Your task to perform on an android device: Clear all items from cart on bestbuy. Image 0: 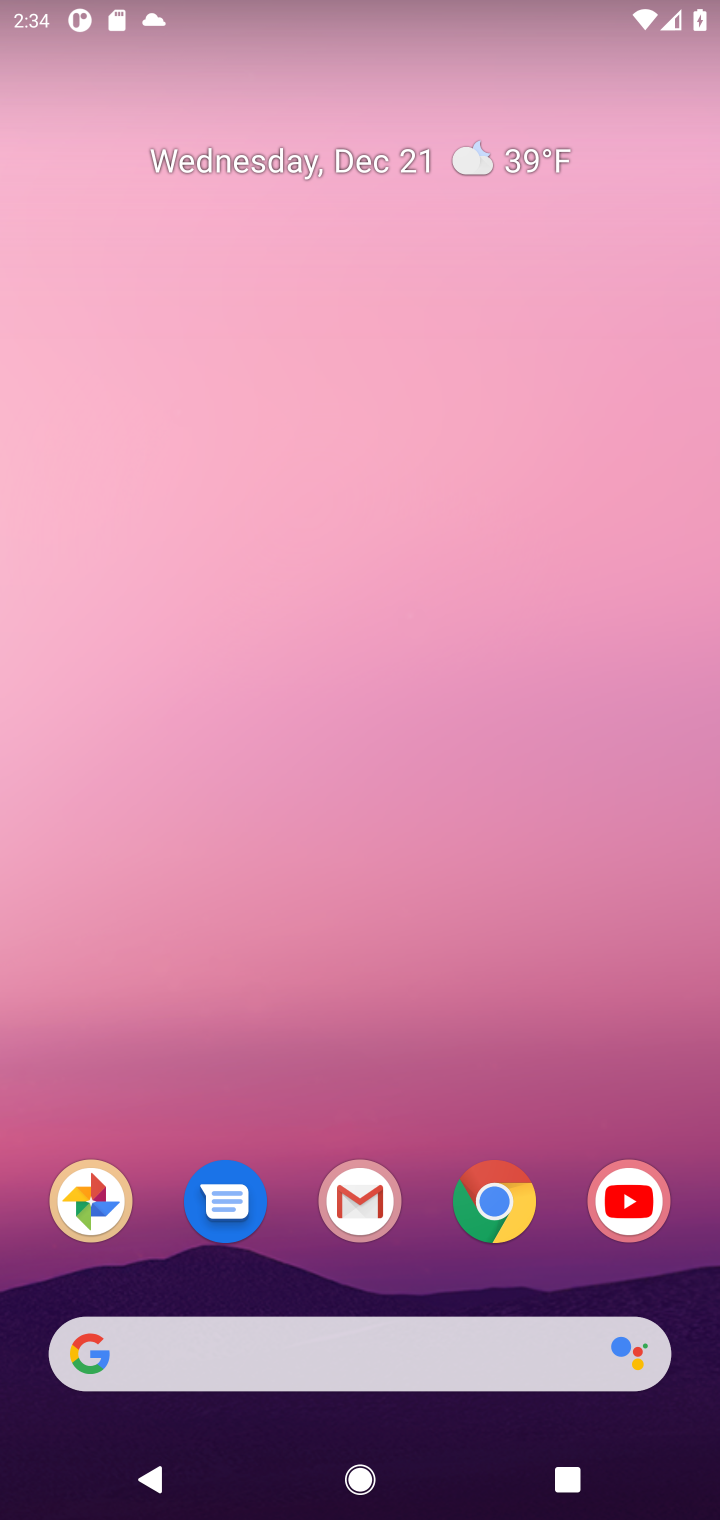
Step 0: click (500, 1202)
Your task to perform on an android device: Clear all items from cart on bestbuy. Image 1: 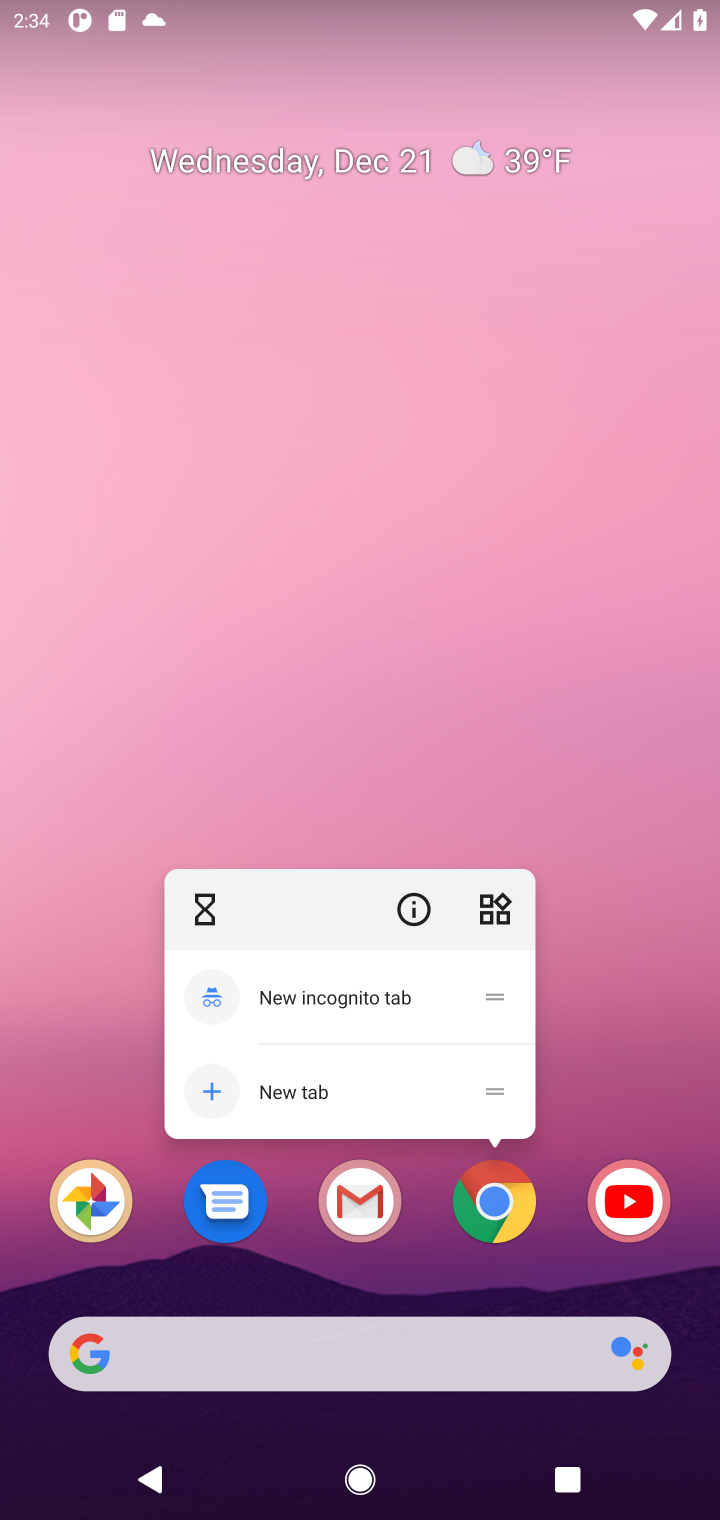
Step 1: click (500, 1209)
Your task to perform on an android device: Clear all items from cart on bestbuy. Image 2: 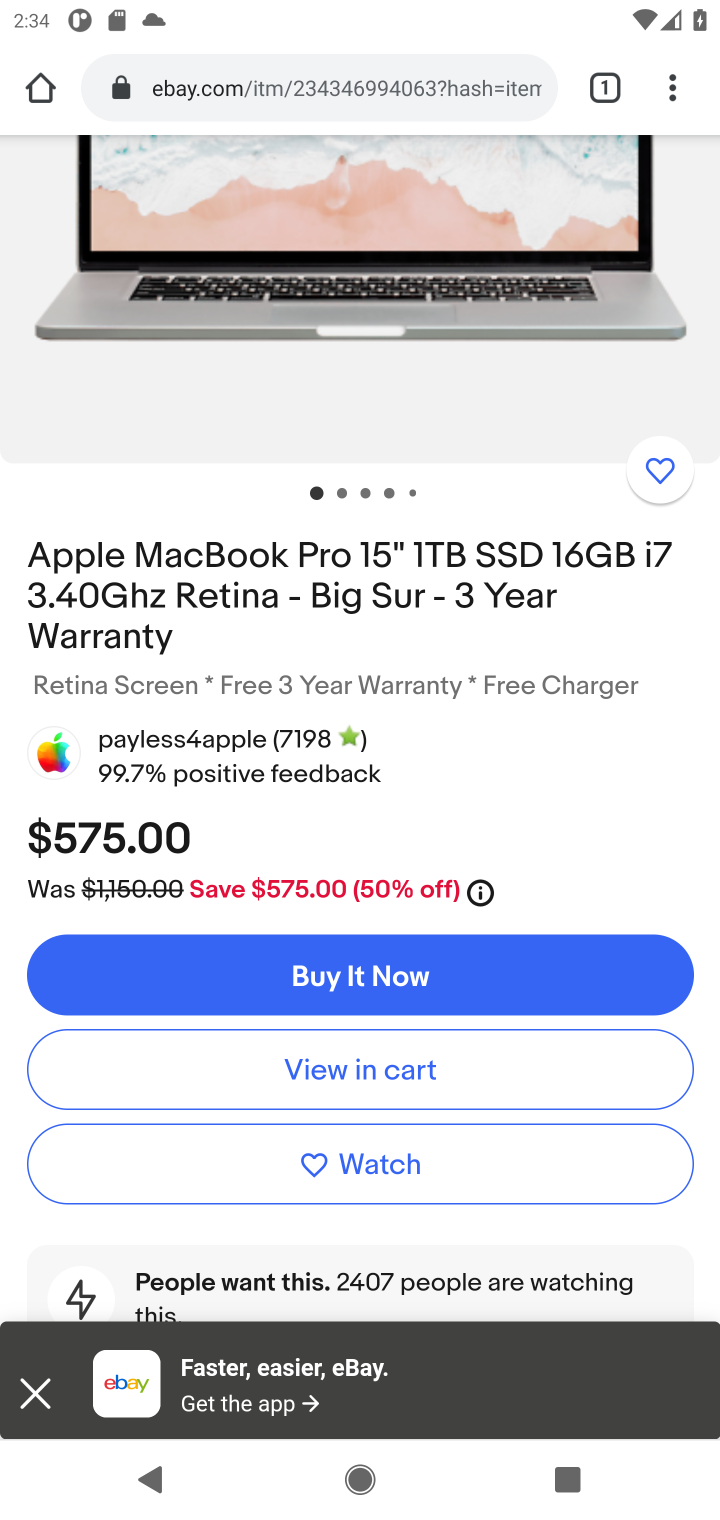
Step 2: click (263, 96)
Your task to perform on an android device: Clear all items from cart on bestbuy. Image 3: 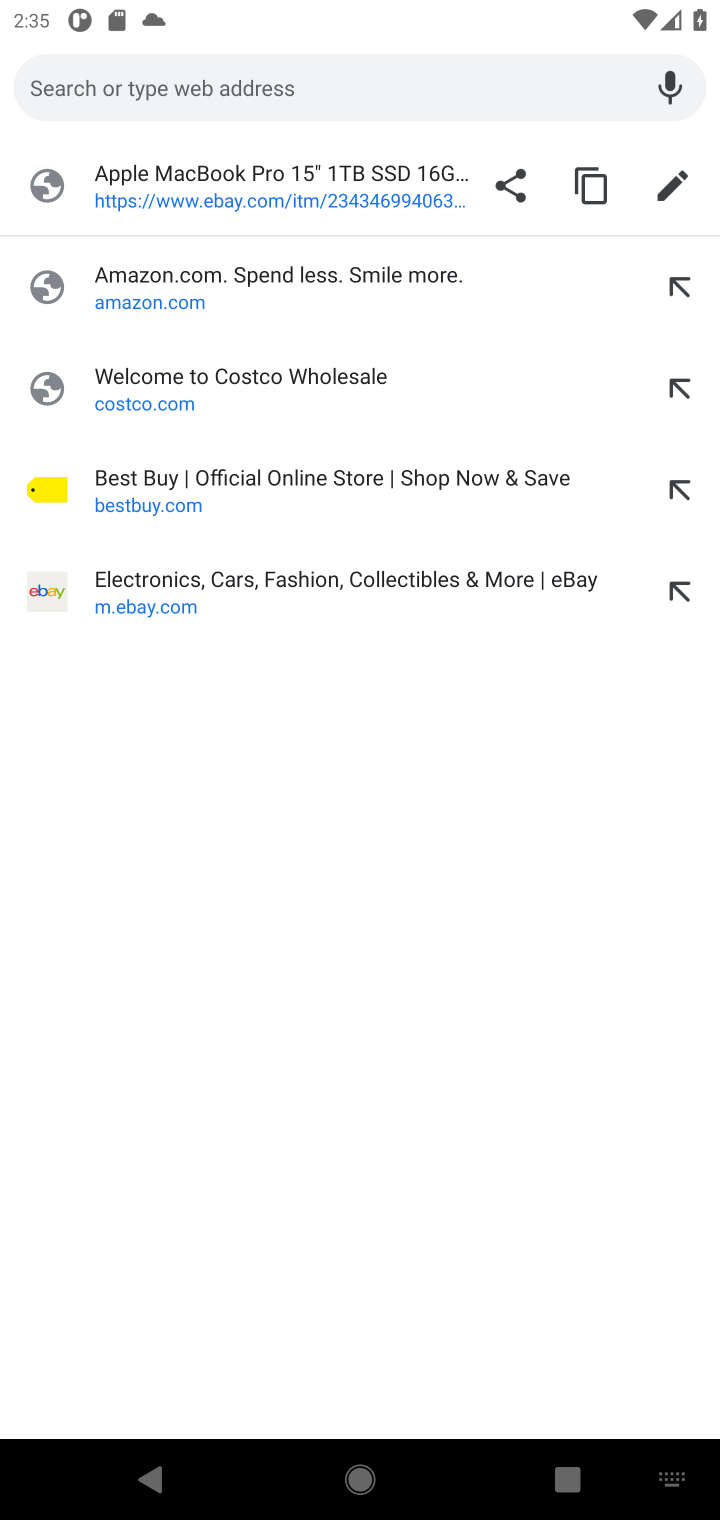
Step 3: click (149, 492)
Your task to perform on an android device: Clear all items from cart on bestbuy. Image 4: 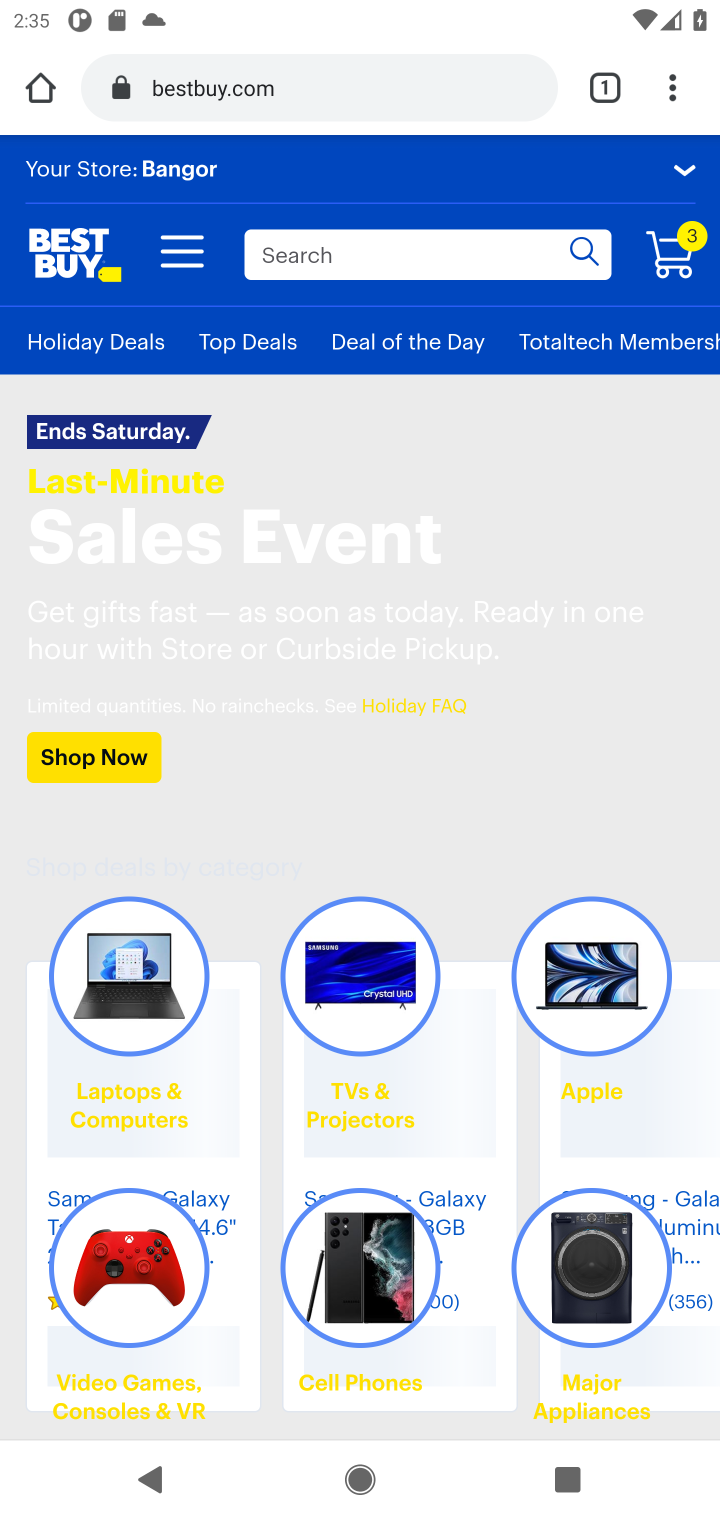
Step 4: click (677, 261)
Your task to perform on an android device: Clear all items from cart on bestbuy. Image 5: 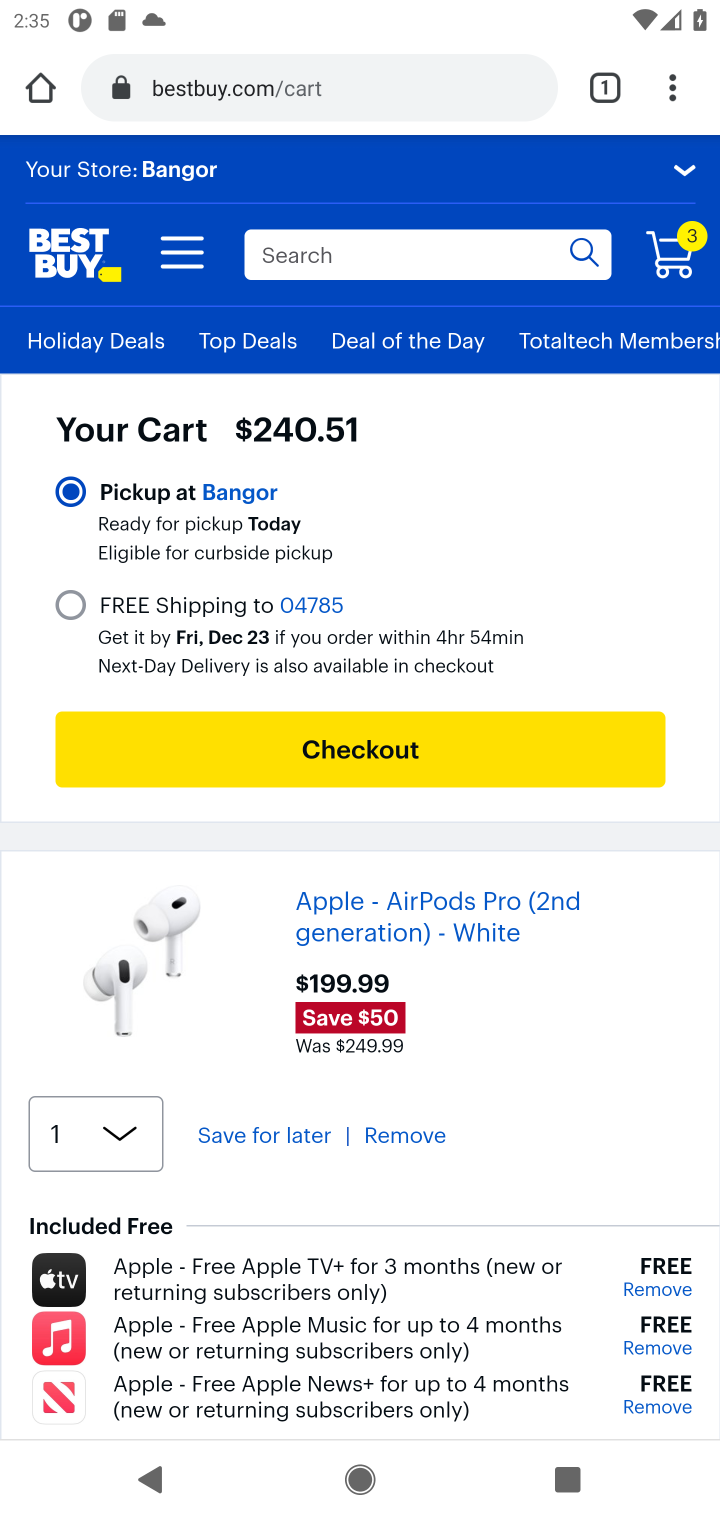
Step 5: click (415, 1138)
Your task to perform on an android device: Clear all items from cart on bestbuy. Image 6: 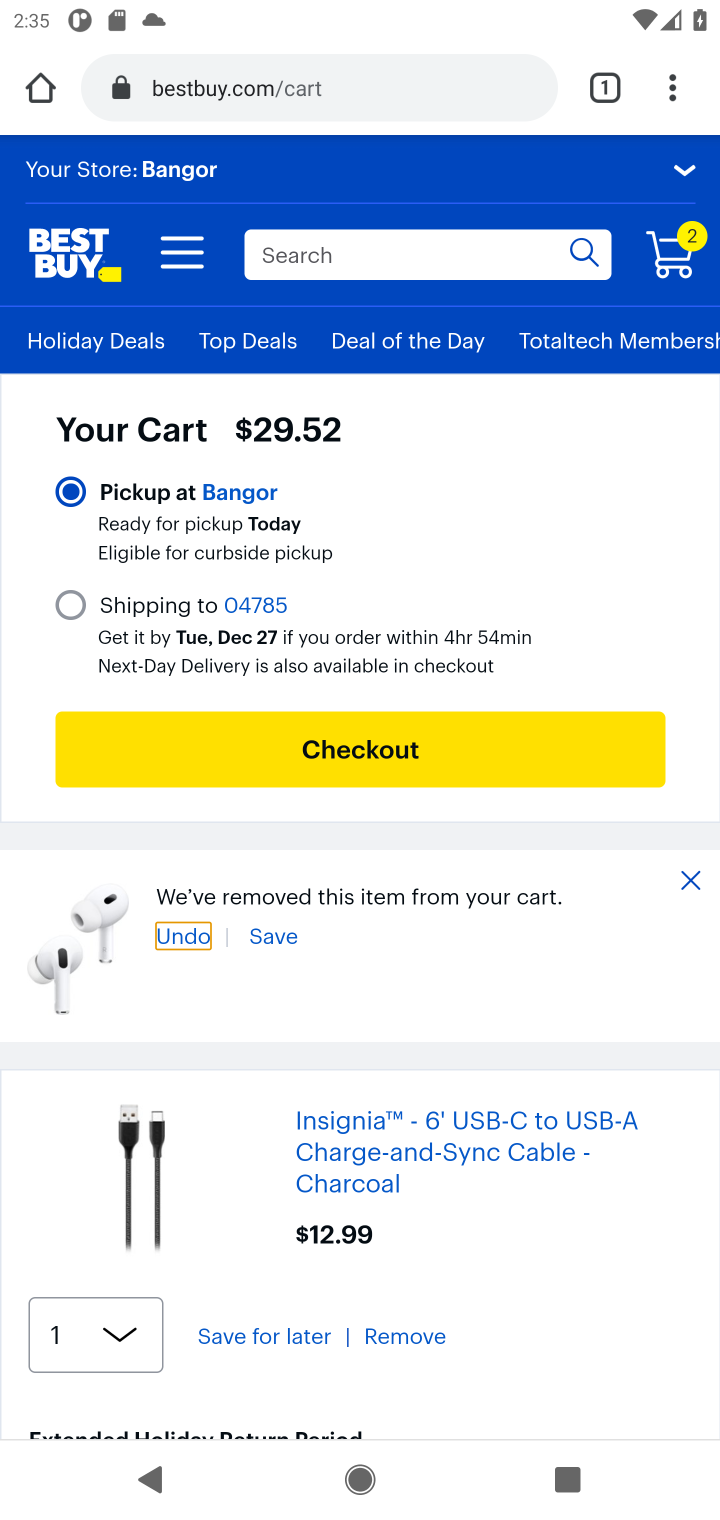
Step 6: drag from (416, 1151) to (388, 778)
Your task to perform on an android device: Clear all items from cart on bestbuy. Image 7: 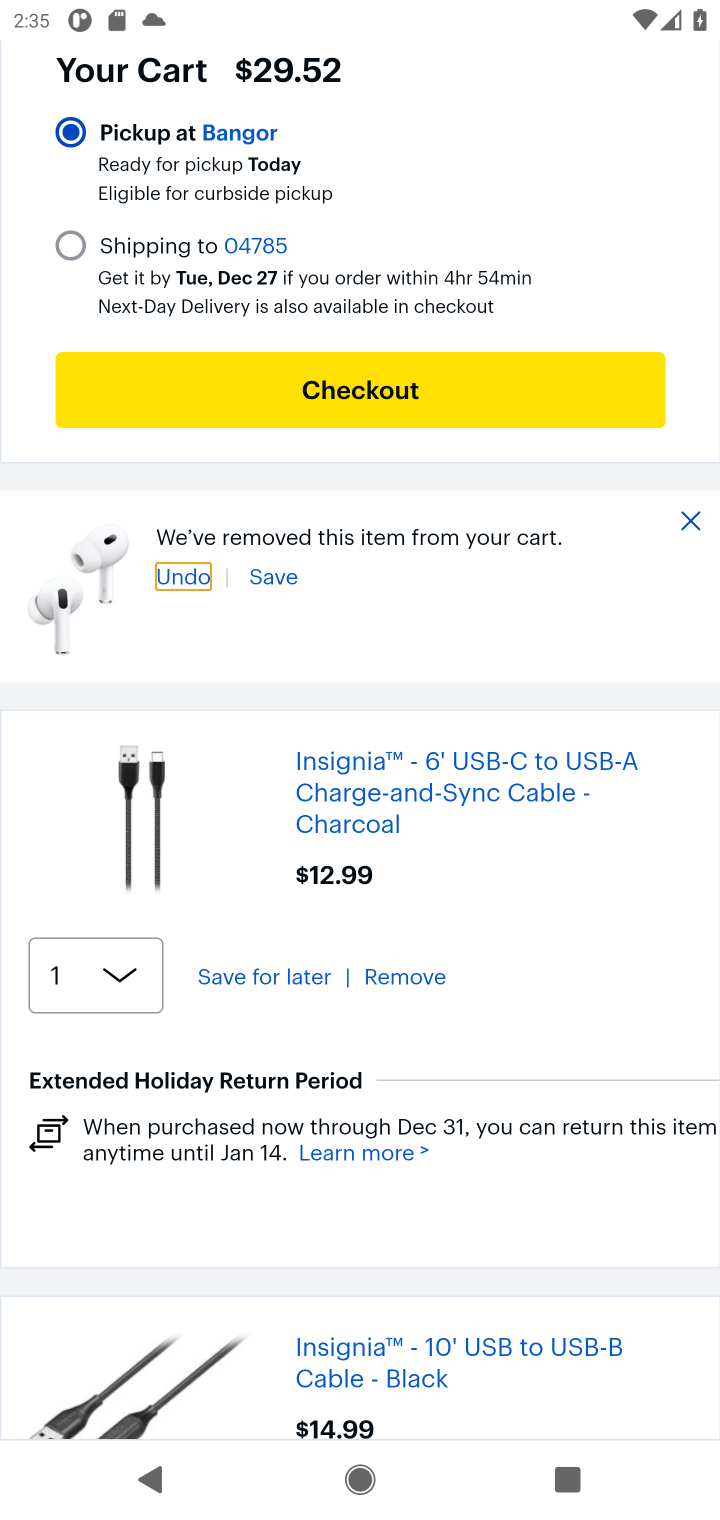
Step 7: click (405, 977)
Your task to perform on an android device: Clear all items from cart on bestbuy. Image 8: 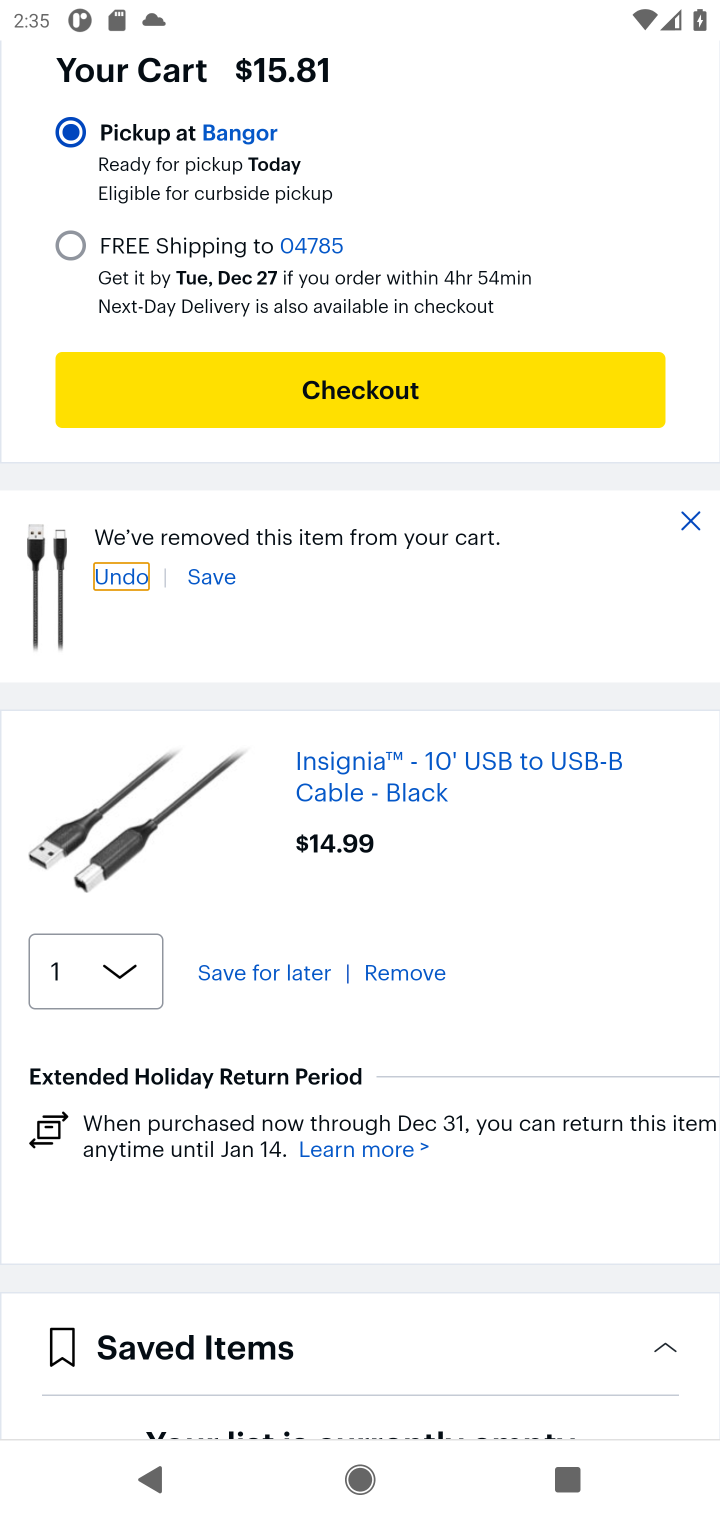
Step 8: click (405, 977)
Your task to perform on an android device: Clear all items from cart on bestbuy. Image 9: 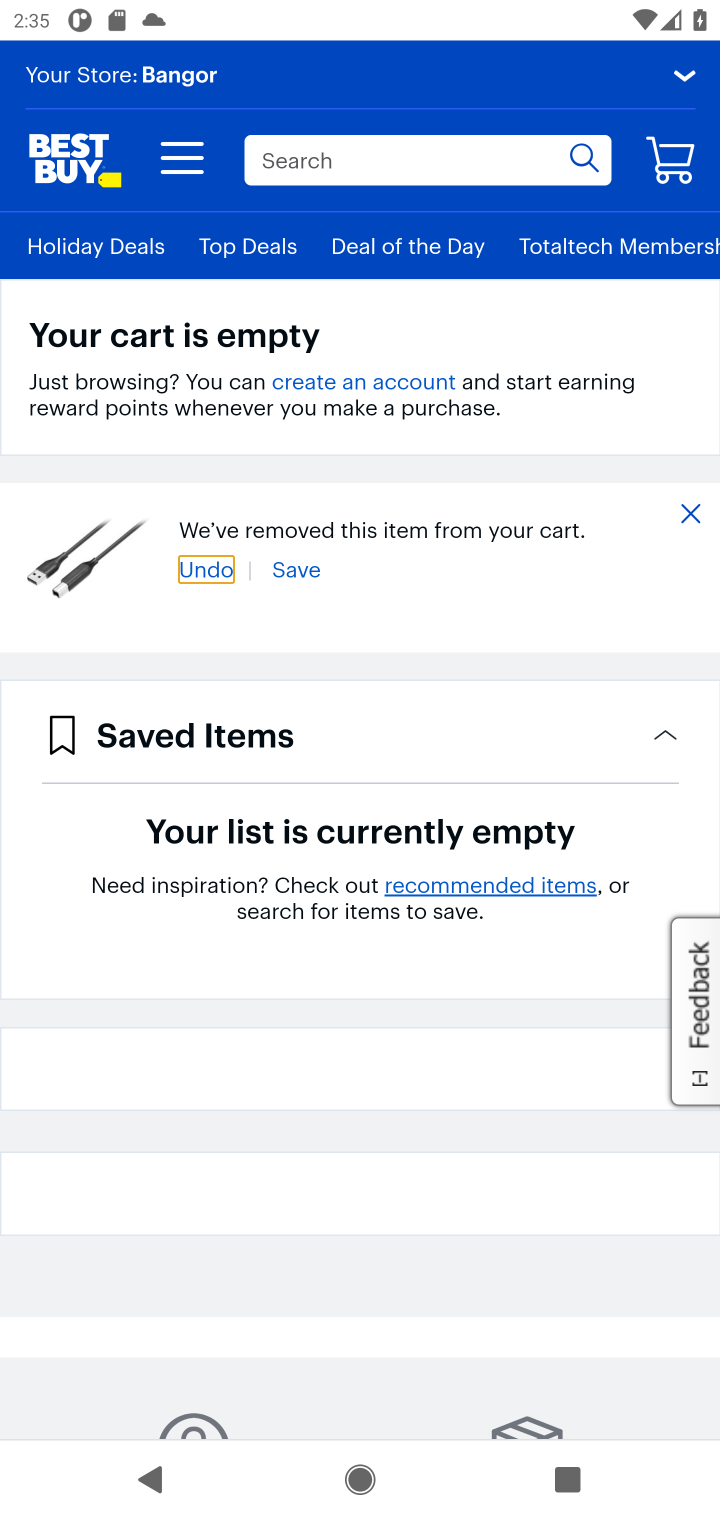
Step 9: task complete